Your task to perform on an android device: Open eBay Image 0: 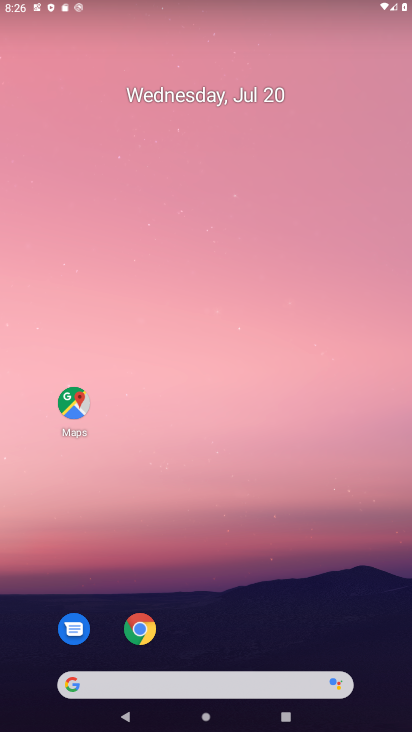
Step 0: press back button
Your task to perform on an android device: Open eBay Image 1: 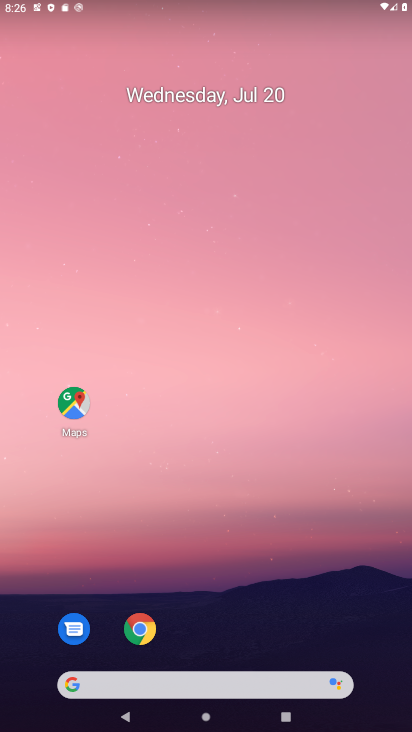
Step 1: drag from (269, 618) to (204, 79)
Your task to perform on an android device: Open eBay Image 2: 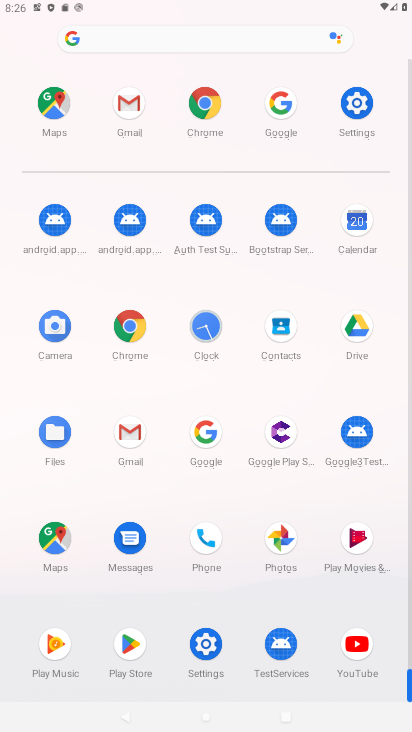
Step 2: click (211, 106)
Your task to perform on an android device: Open eBay Image 3: 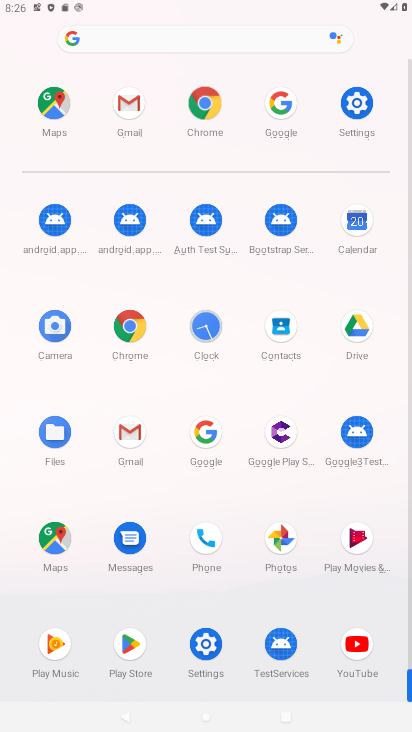
Step 3: click (211, 106)
Your task to perform on an android device: Open eBay Image 4: 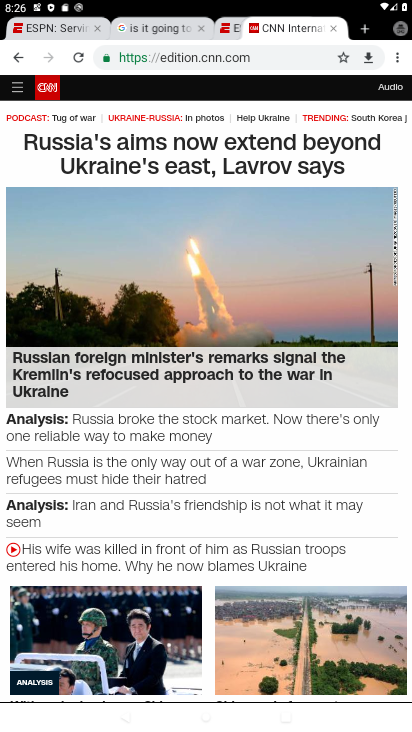
Step 4: drag from (396, 51) to (278, 51)
Your task to perform on an android device: Open eBay Image 5: 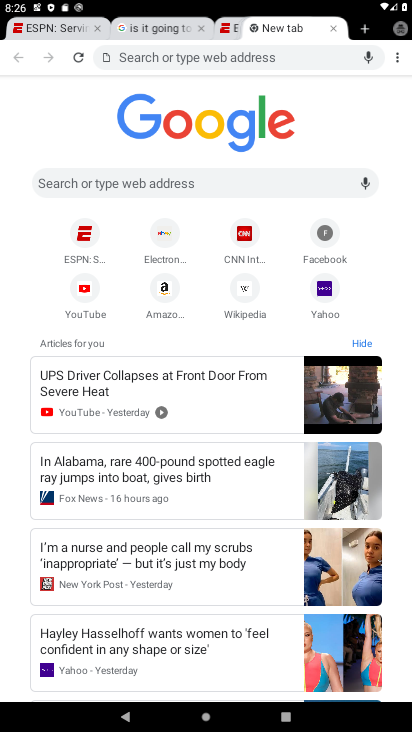
Step 5: click (160, 236)
Your task to perform on an android device: Open eBay Image 6: 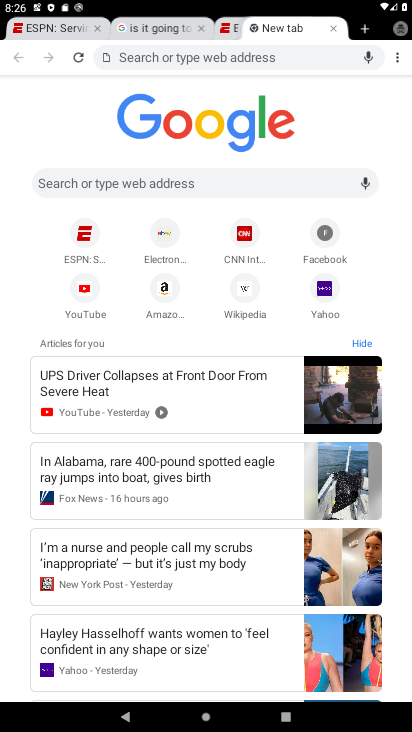
Step 6: click (160, 236)
Your task to perform on an android device: Open eBay Image 7: 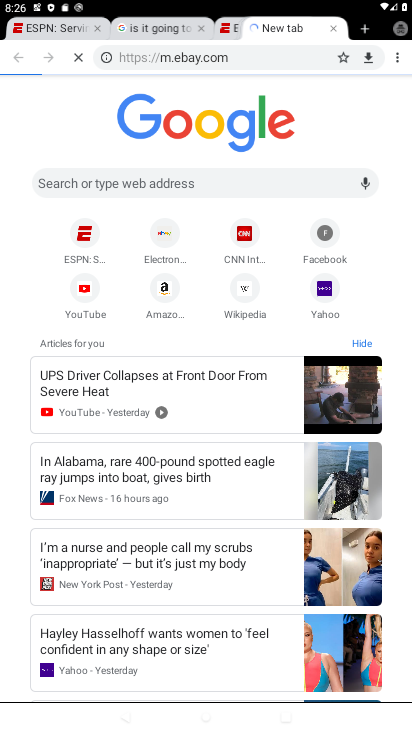
Step 7: click (164, 236)
Your task to perform on an android device: Open eBay Image 8: 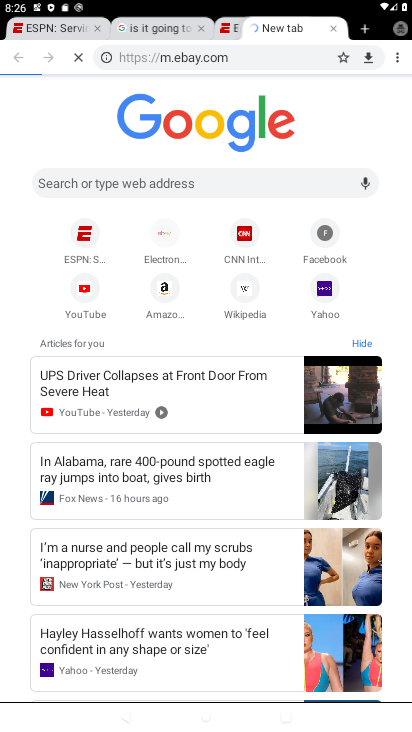
Step 8: click (167, 234)
Your task to perform on an android device: Open eBay Image 9: 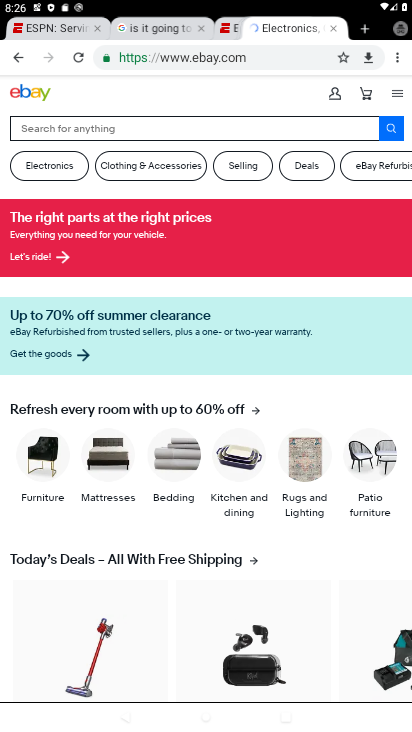
Step 9: task complete